Your task to perform on an android device: turn off javascript in the chrome app Image 0: 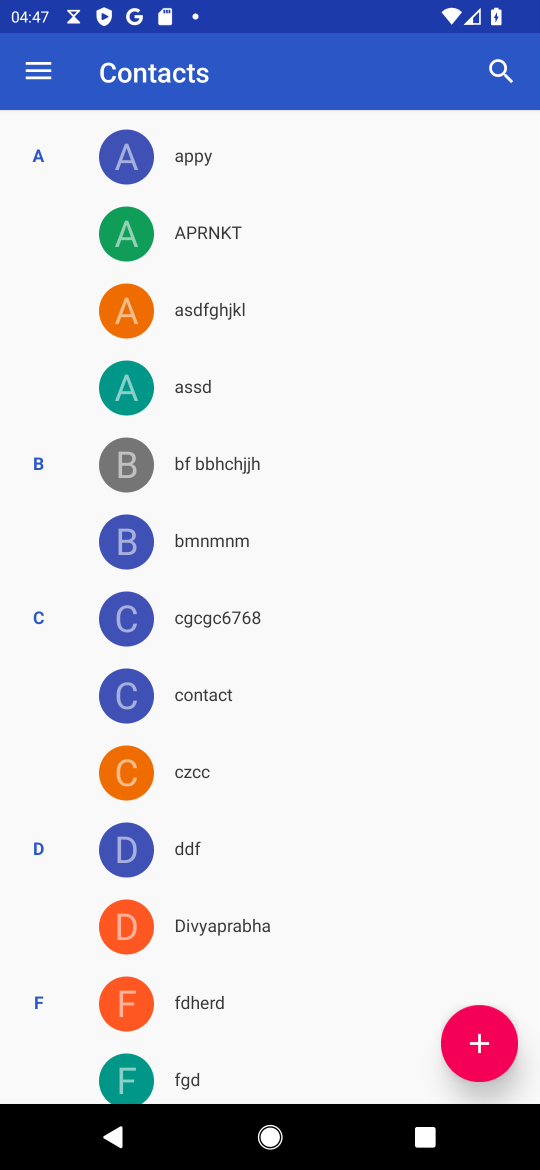
Step 0: press home button
Your task to perform on an android device: turn off javascript in the chrome app Image 1: 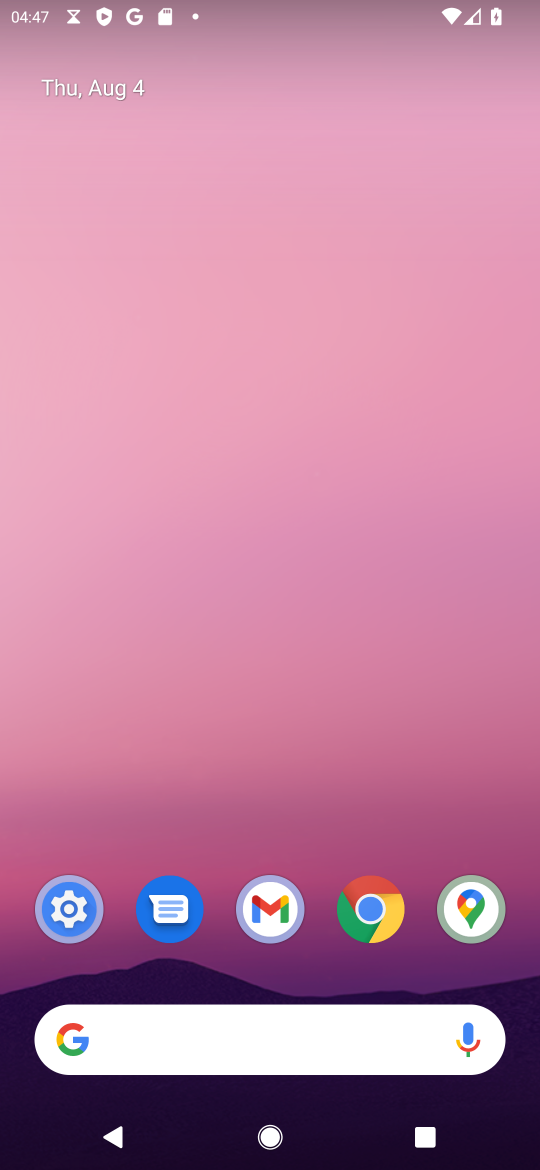
Step 1: click (378, 905)
Your task to perform on an android device: turn off javascript in the chrome app Image 2: 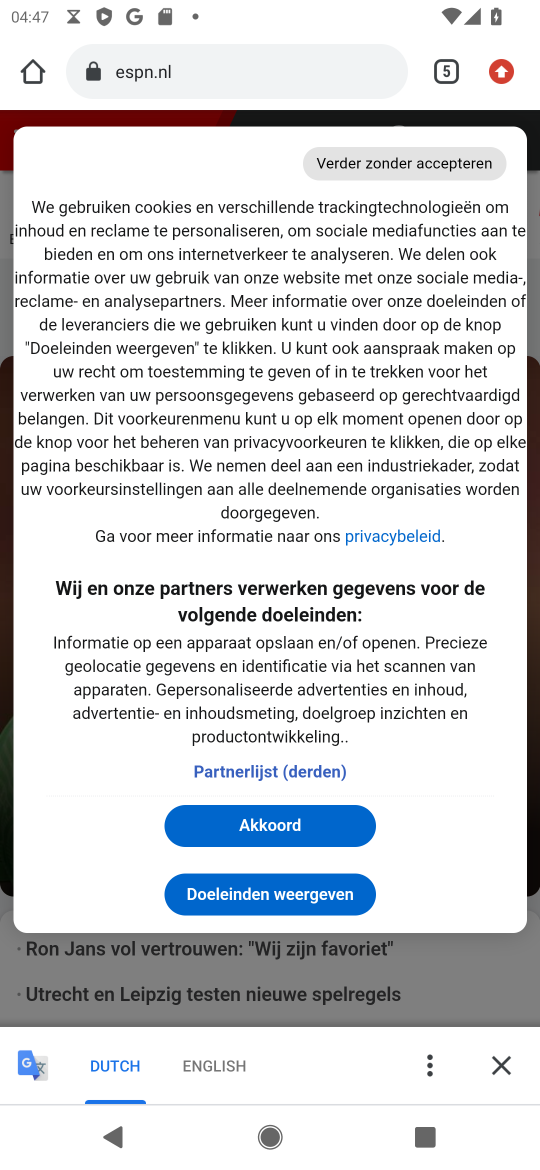
Step 2: click (503, 88)
Your task to perform on an android device: turn off javascript in the chrome app Image 3: 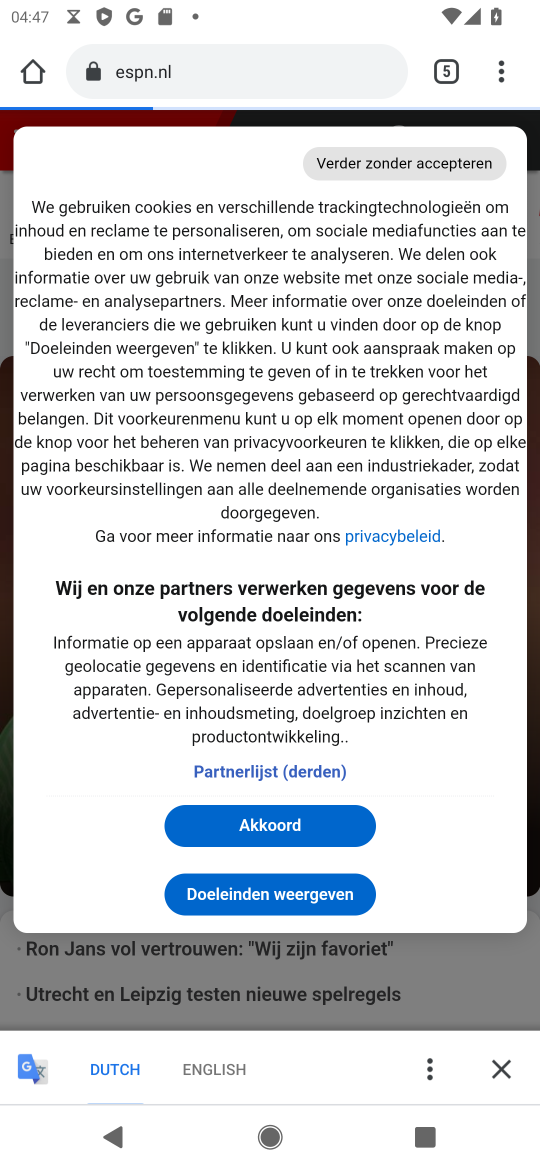
Step 3: drag from (500, 88) to (335, 987)
Your task to perform on an android device: turn off javascript in the chrome app Image 4: 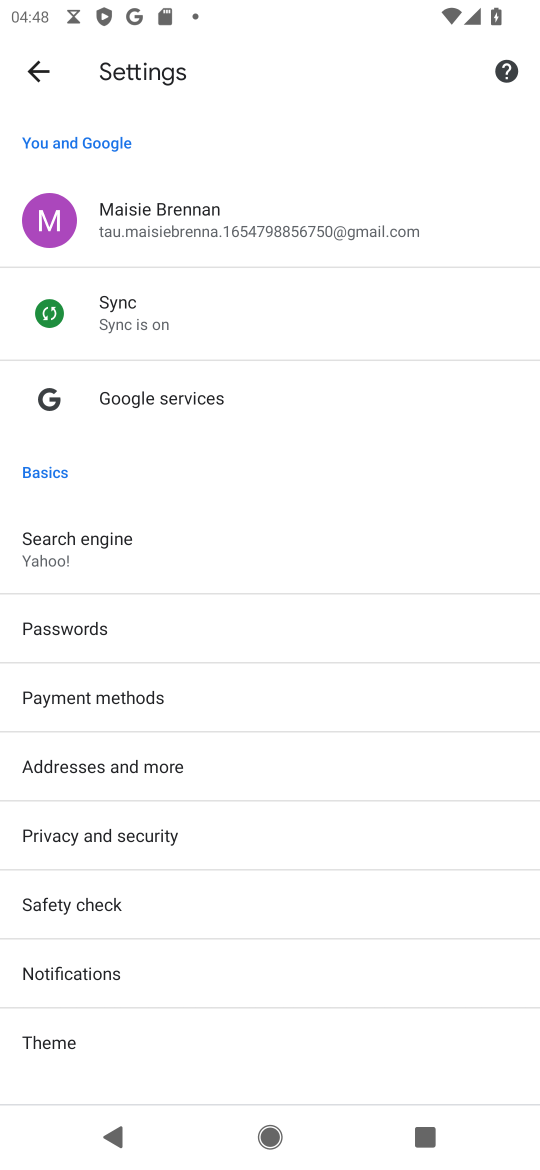
Step 4: drag from (191, 913) to (336, 395)
Your task to perform on an android device: turn off javascript in the chrome app Image 5: 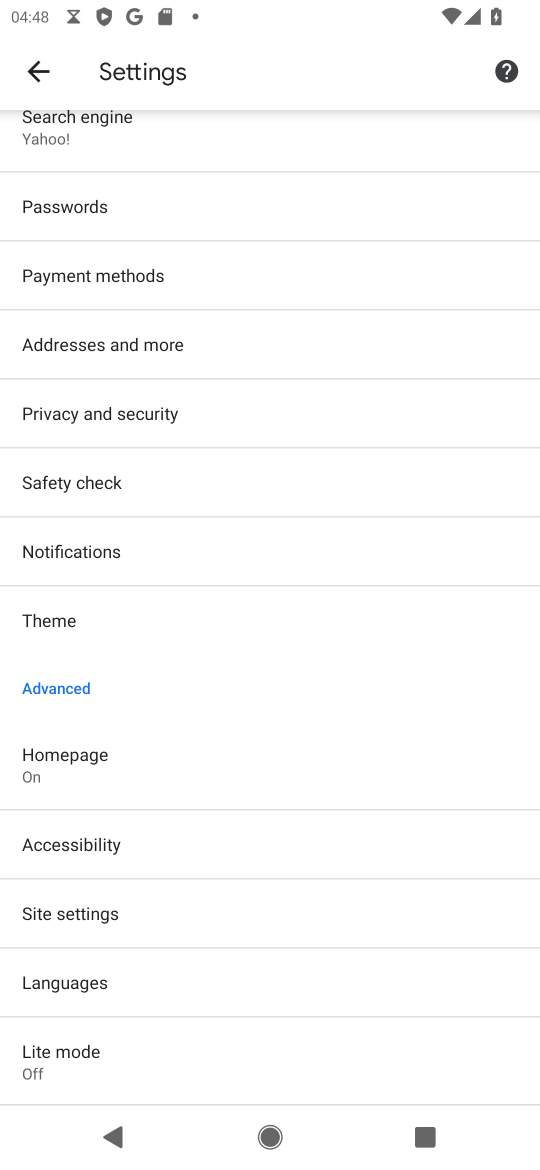
Step 5: click (96, 906)
Your task to perform on an android device: turn off javascript in the chrome app Image 6: 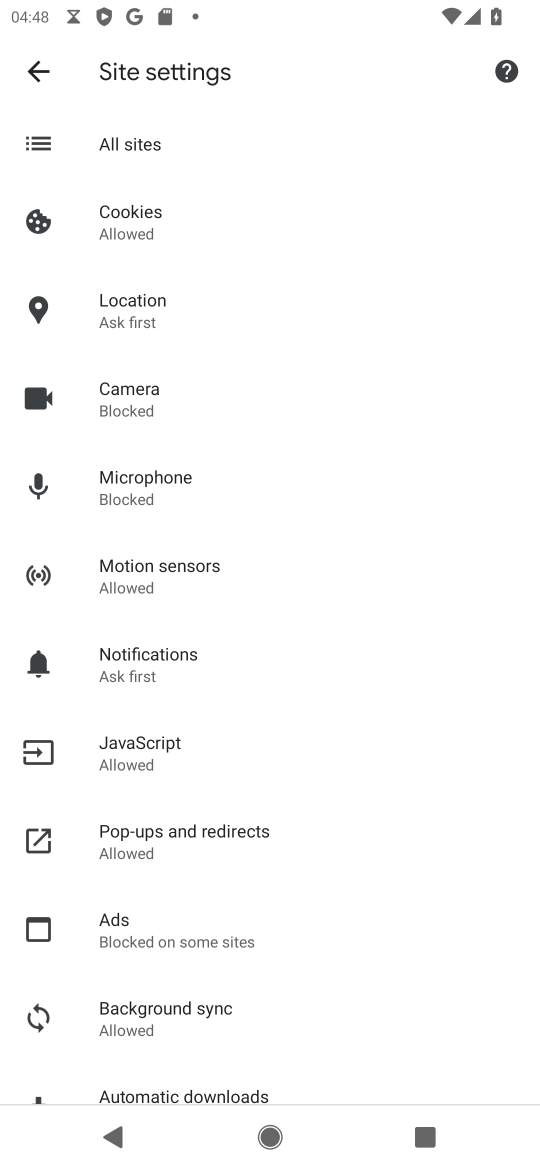
Step 6: click (150, 728)
Your task to perform on an android device: turn off javascript in the chrome app Image 7: 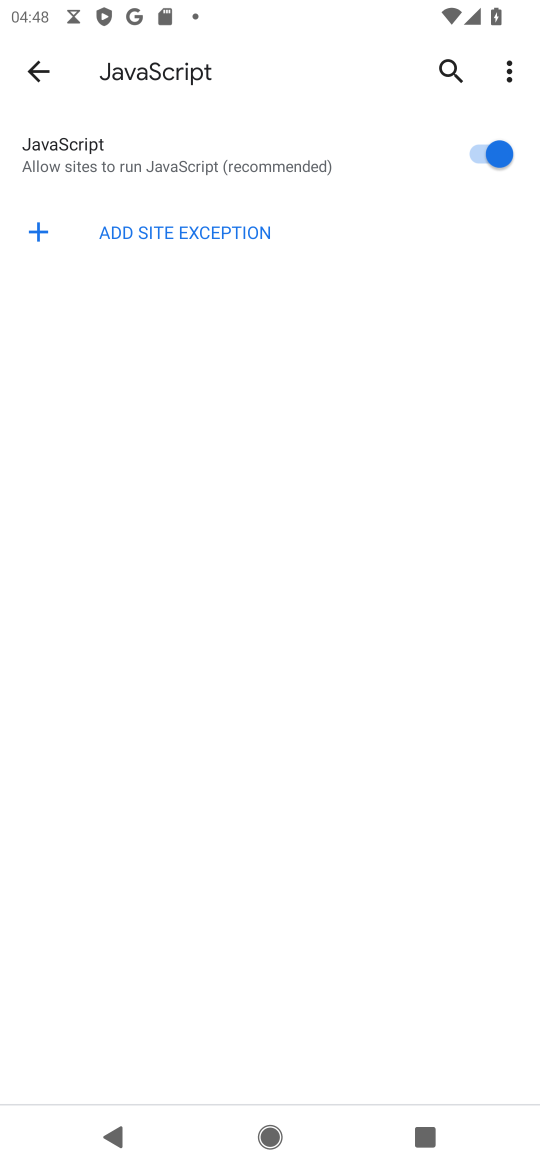
Step 7: click (482, 153)
Your task to perform on an android device: turn off javascript in the chrome app Image 8: 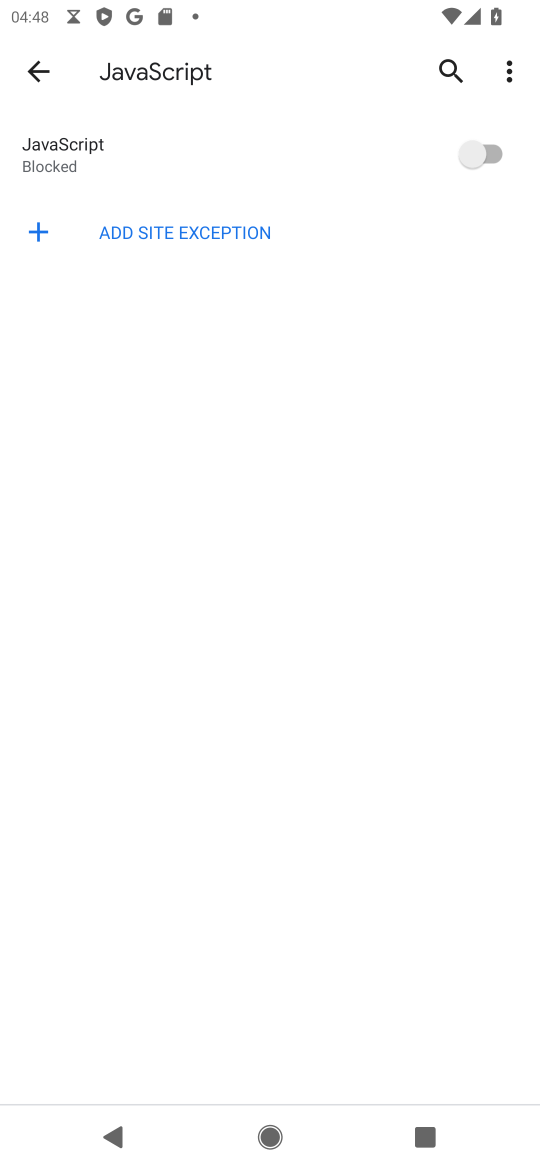
Step 8: task complete